Your task to perform on an android device: set an alarm Image 0: 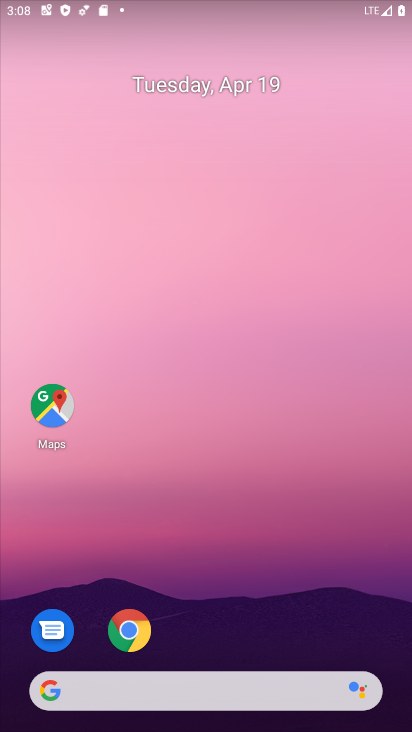
Step 0: drag from (218, 724) to (159, 44)
Your task to perform on an android device: set an alarm Image 1: 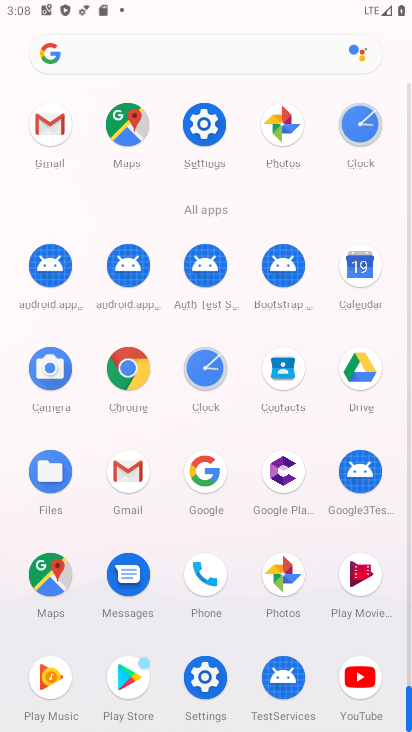
Step 1: click (206, 369)
Your task to perform on an android device: set an alarm Image 2: 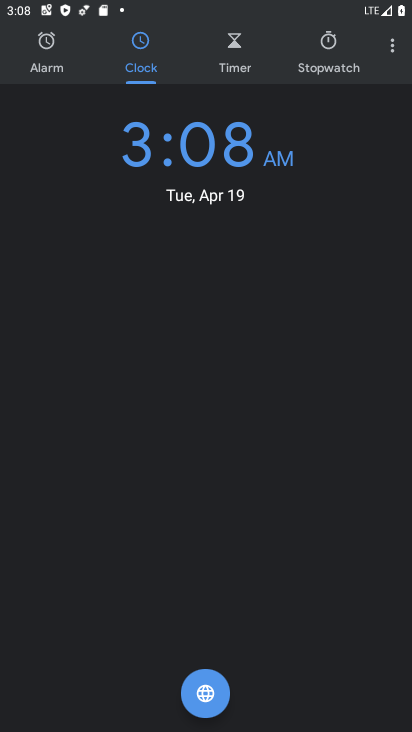
Step 2: click (50, 60)
Your task to perform on an android device: set an alarm Image 3: 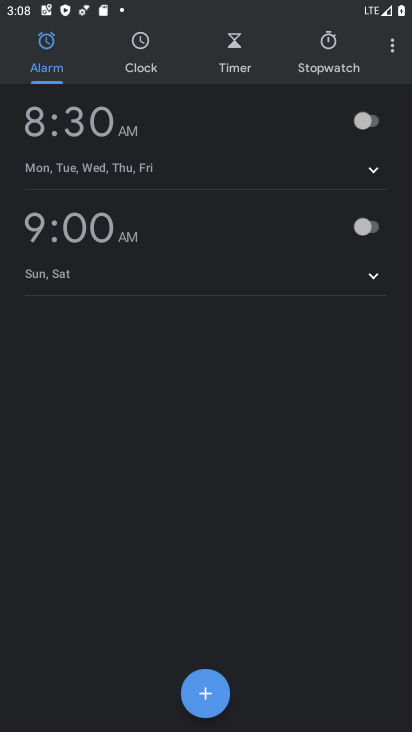
Step 3: click (208, 695)
Your task to perform on an android device: set an alarm Image 4: 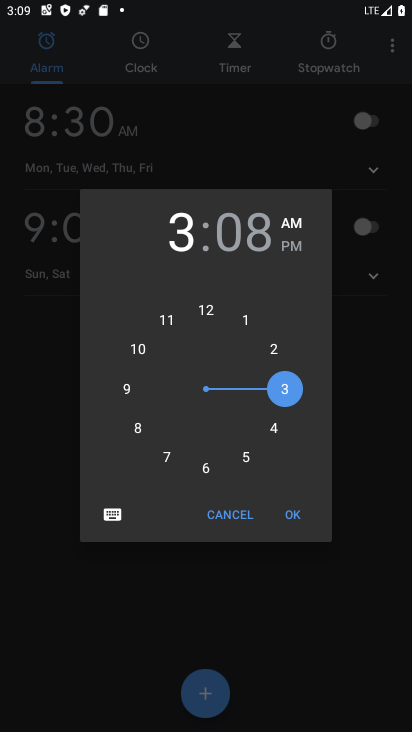
Step 4: click (210, 468)
Your task to perform on an android device: set an alarm Image 5: 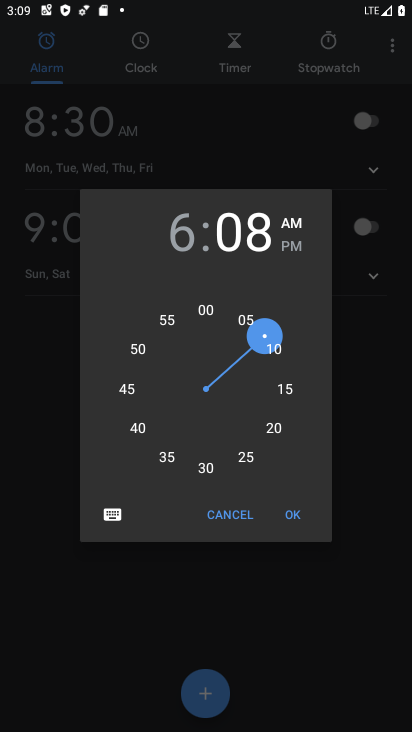
Step 5: click (290, 513)
Your task to perform on an android device: set an alarm Image 6: 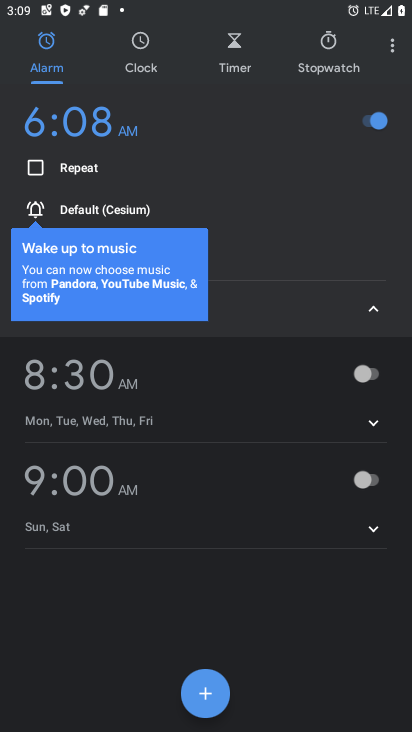
Step 6: task complete